Your task to perform on an android device: add a contact Image 0: 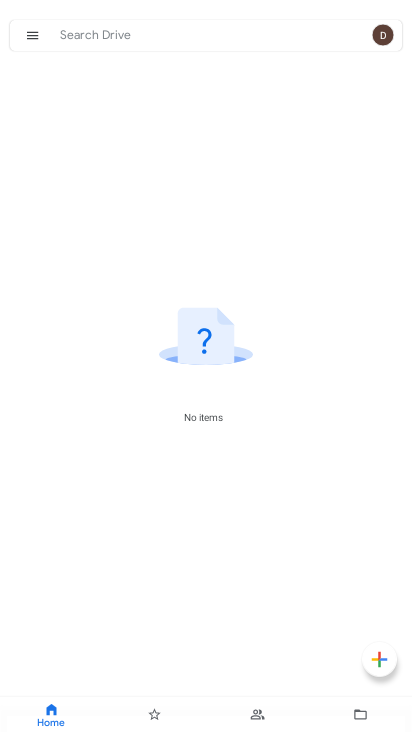
Step 0: press home button
Your task to perform on an android device: add a contact Image 1: 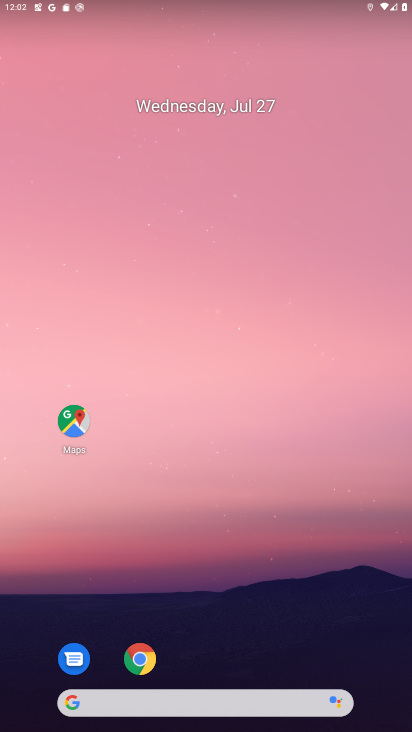
Step 1: drag from (231, 697) to (219, 96)
Your task to perform on an android device: add a contact Image 2: 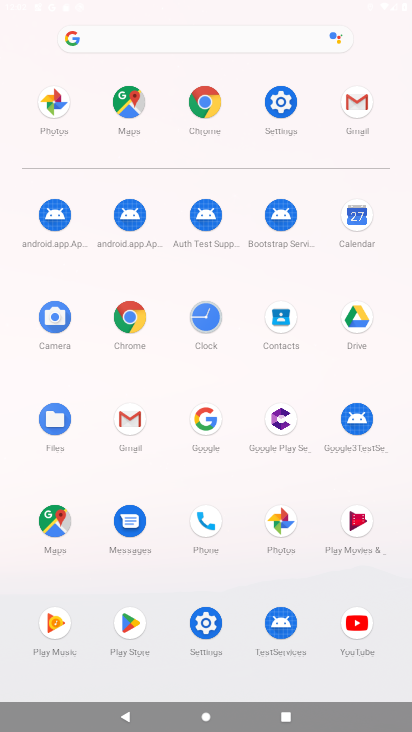
Step 2: click (293, 324)
Your task to perform on an android device: add a contact Image 3: 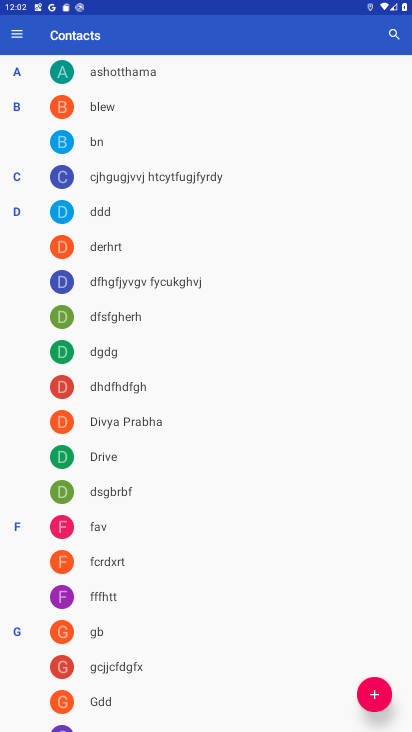
Step 3: click (365, 698)
Your task to perform on an android device: add a contact Image 4: 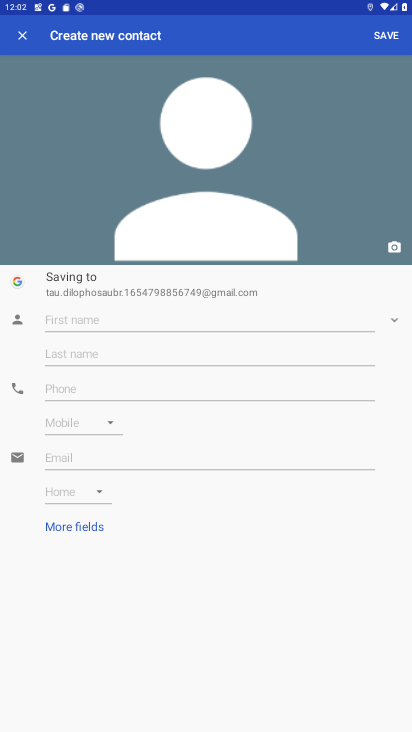
Step 4: click (209, 320)
Your task to perform on an android device: add a contact Image 5: 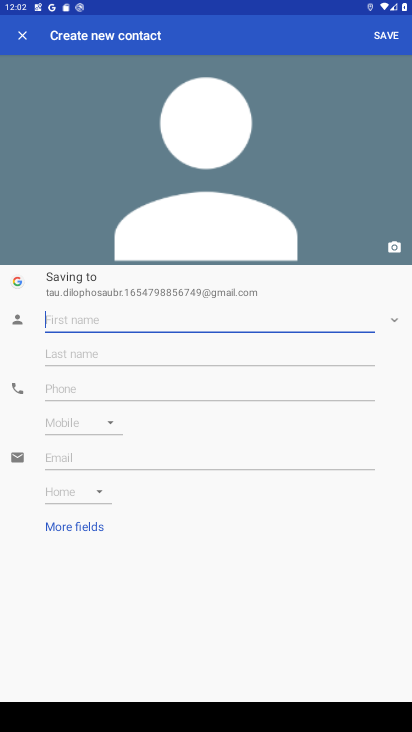
Step 5: type "sanjeev"
Your task to perform on an android device: add a contact Image 6: 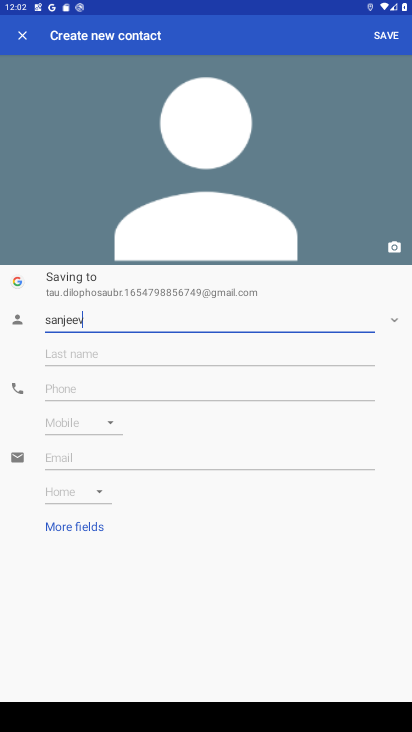
Step 6: click (146, 382)
Your task to perform on an android device: add a contact Image 7: 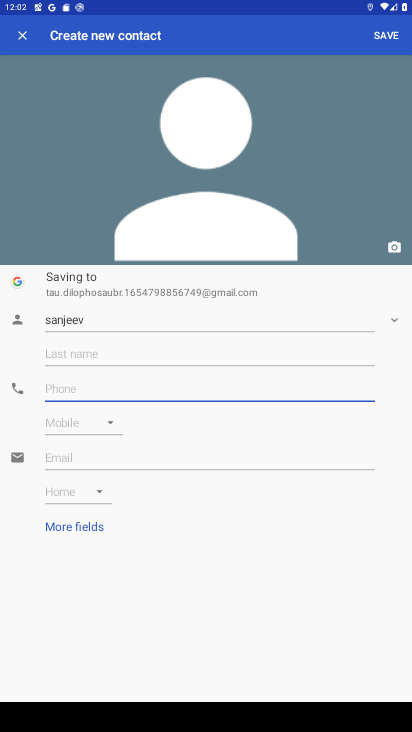
Step 7: type "9123432123"
Your task to perform on an android device: add a contact Image 8: 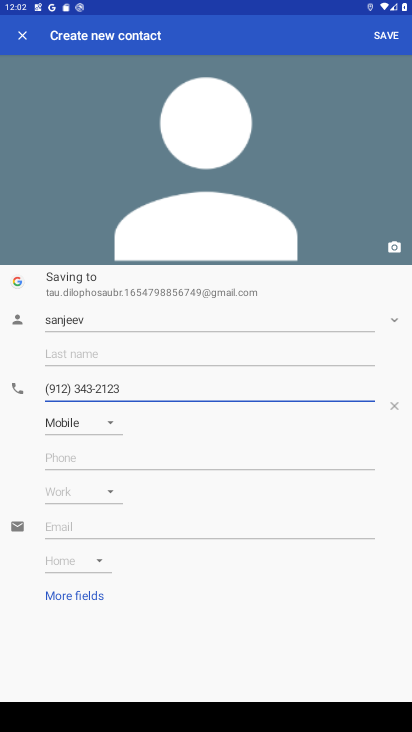
Step 8: click (393, 36)
Your task to perform on an android device: add a contact Image 9: 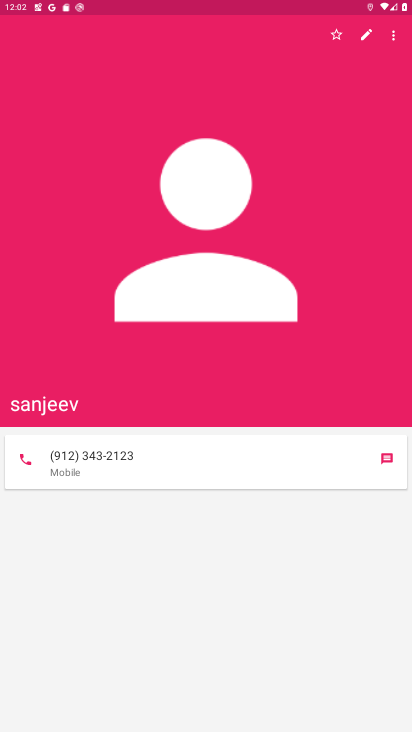
Step 9: task complete